Your task to perform on an android device: View the shopping cart on costco. Add "razer blade" to the cart on costco Image 0: 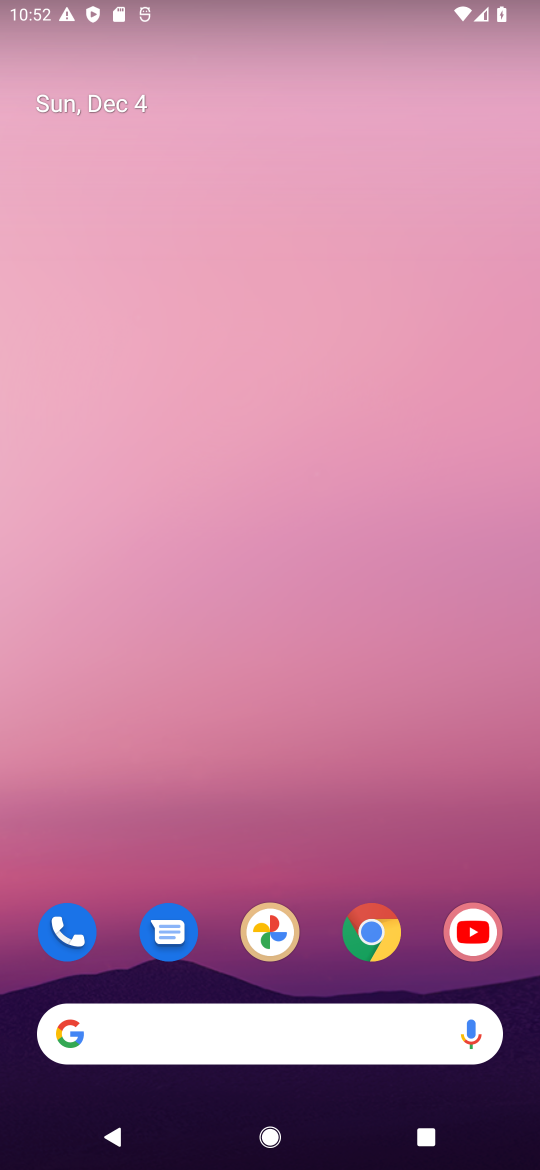
Step 0: click (376, 938)
Your task to perform on an android device: View the shopping cart on costco. Add "razer blade" to the cart on costco Image 1: 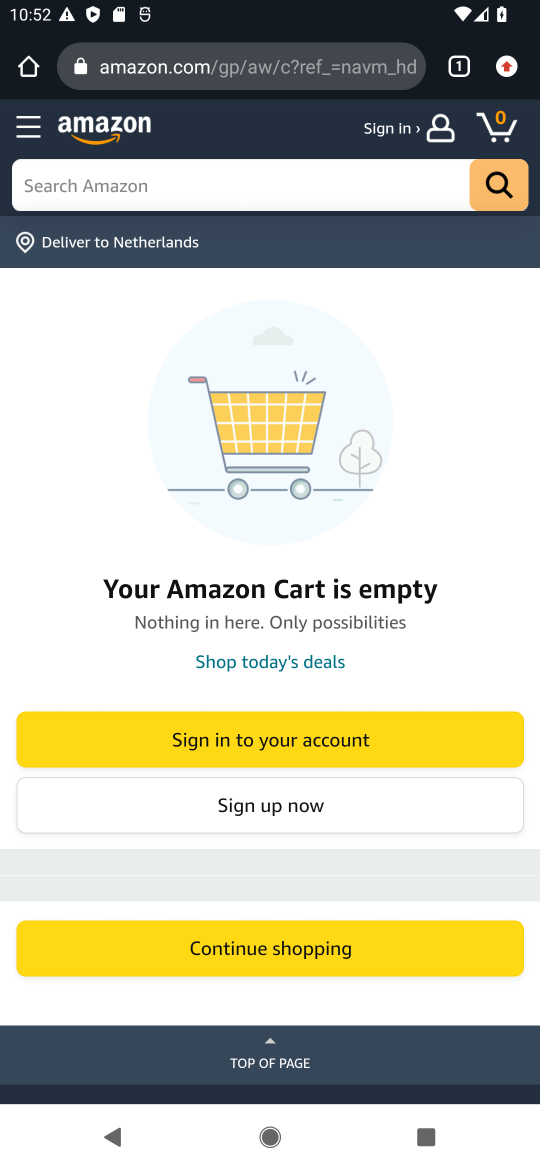
Step 1: click (267, 64)
Your task to perform on an android device: View the shopping cart on costco. Add "razer blade" to the cart on costco Image 2: 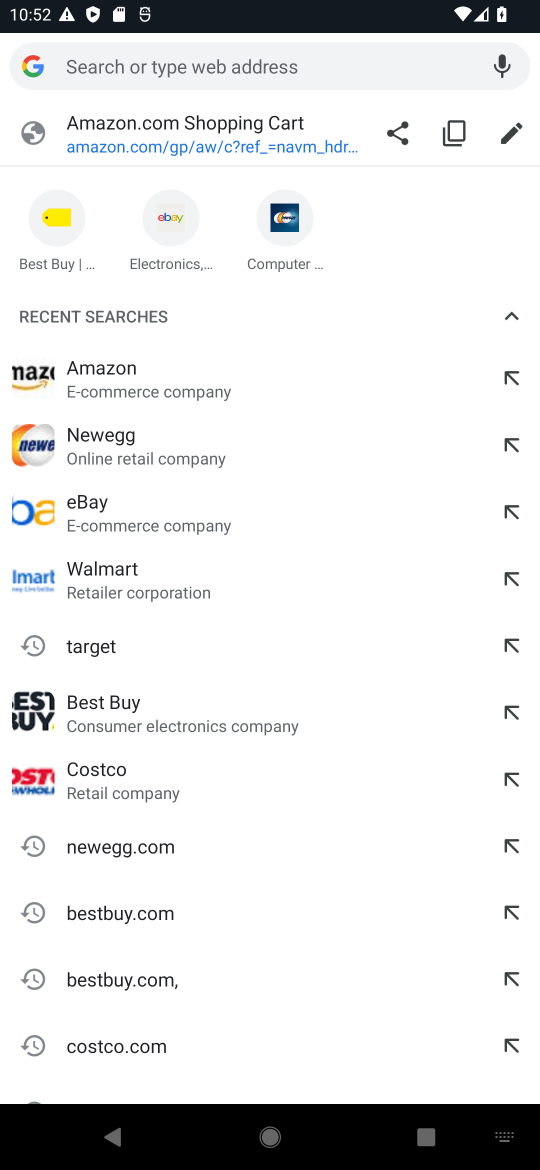
Step 2: click (115, 775)
Your task to perform on an android device: View the shopping cart on costco. Add "razer blade" to the cart on costco Image 3: 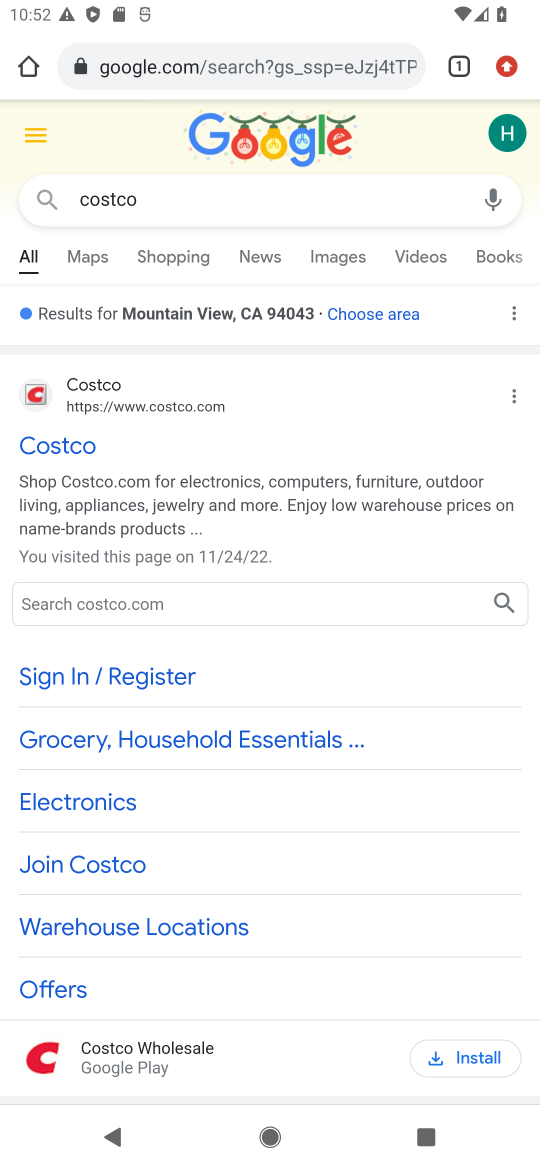
Step 3: click (60, 445)
Your task to perform on an android device: View the shopping cart on costco. Add "razer blade" to the cart on costco Image 4: 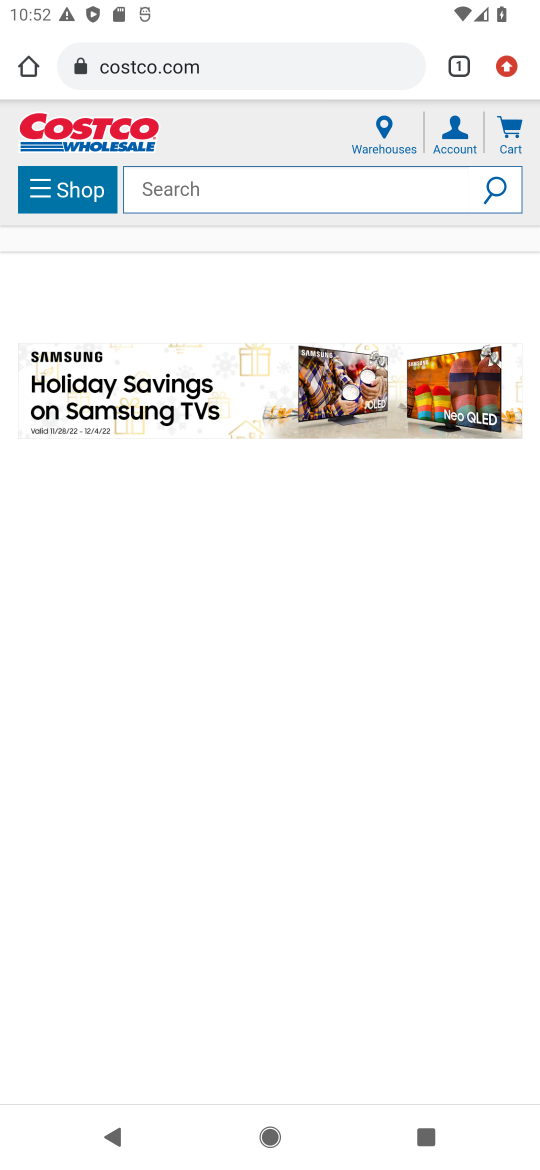
Step 4: click (252, 188)
Your task to perform on an android device: View the shopping cart on costco. Add "razer blade" to the cart on costco Image 5: 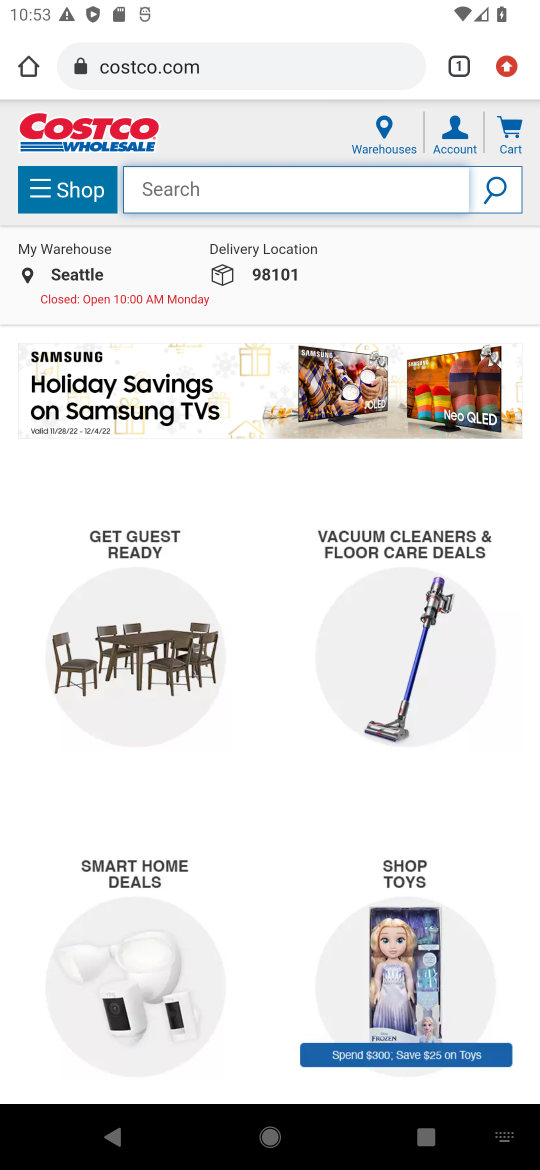
Step 5: type "razer blade"
Your task to perform on an android device: View the shopping cart on costco. Add "razer blade" to the cart on costco Image 6: 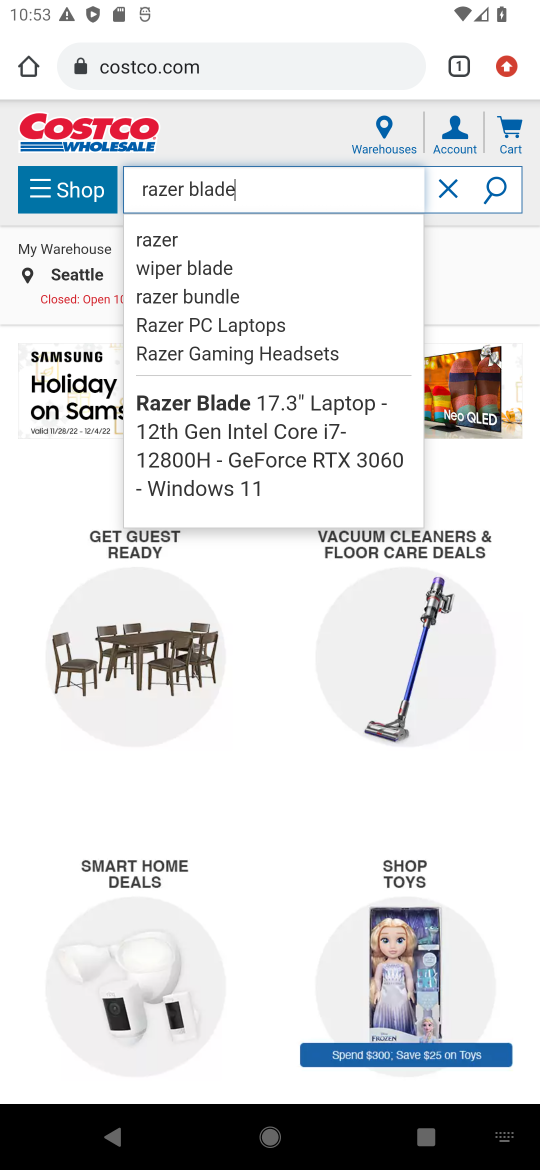
Step 6: click (155, 246)
Your task to perform on an android device: View the shopping cart on costco. Add "razer blade" to the cart on costco Image 7: 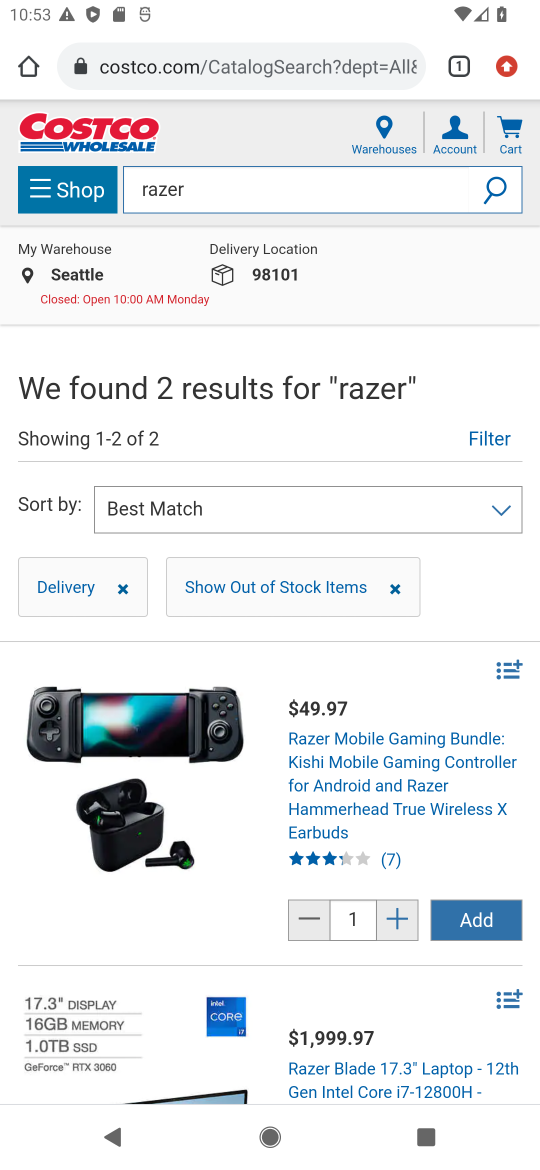
Step 7: click (492, 906)
Your task to perform on an android device: View the shopping cart on costco. Add "razer blade" to the cart on costco Image 8: 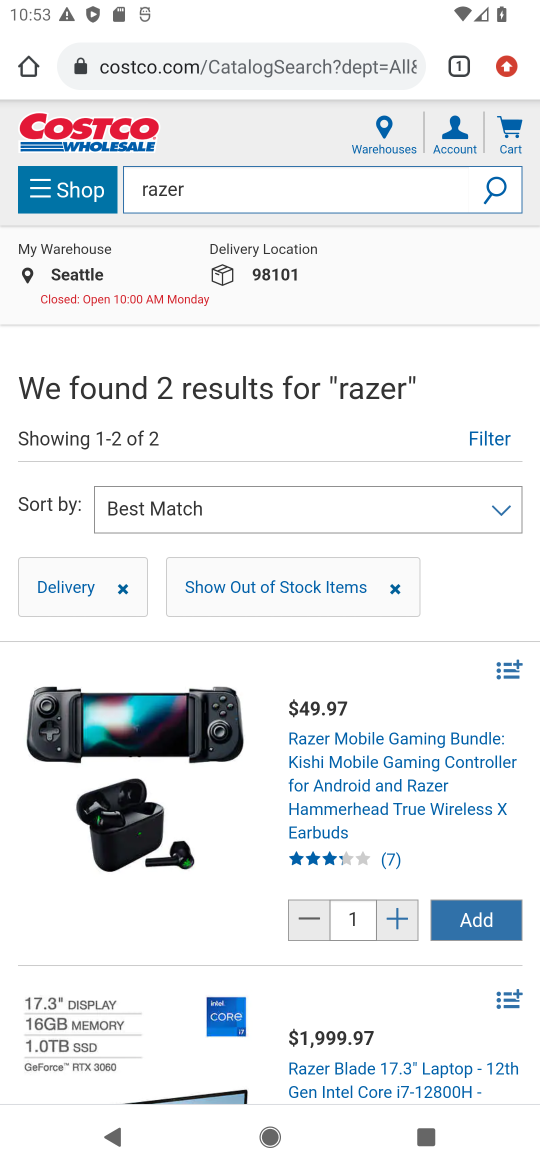
Step 8: click (473, 924)
Your task to perform on an android device: View the shopping cart on costco. Add "razer blade" to the cart on costco Image 9: 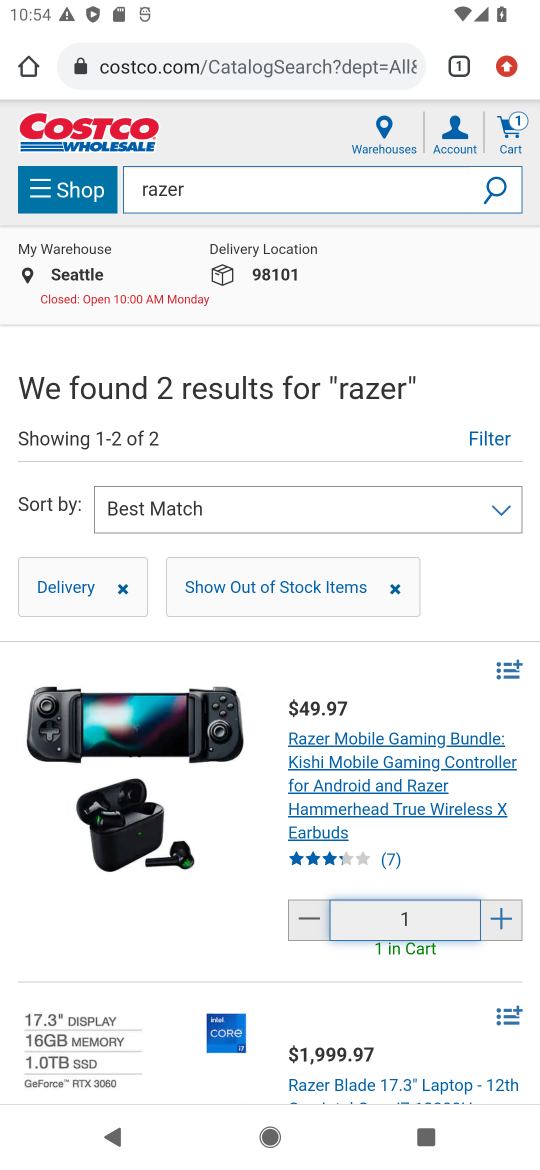
Step 9: task complete